Your task to perform on an android device: turn off notifications settings in the gmail app Image 0: 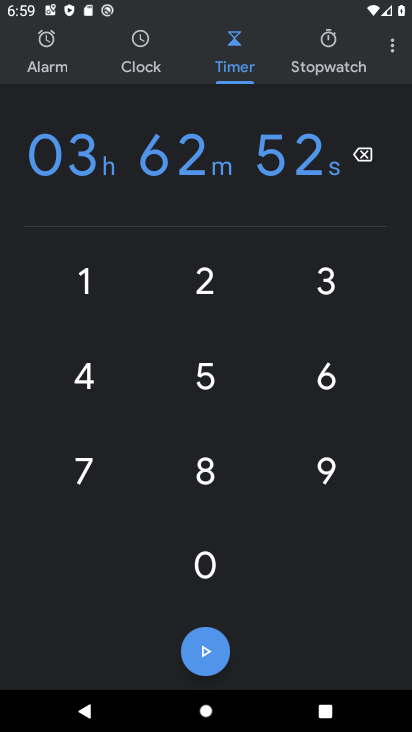
Step 0: press home button
Your task to perform on an android device: turn off notifications settings in the gmail app Image 1: 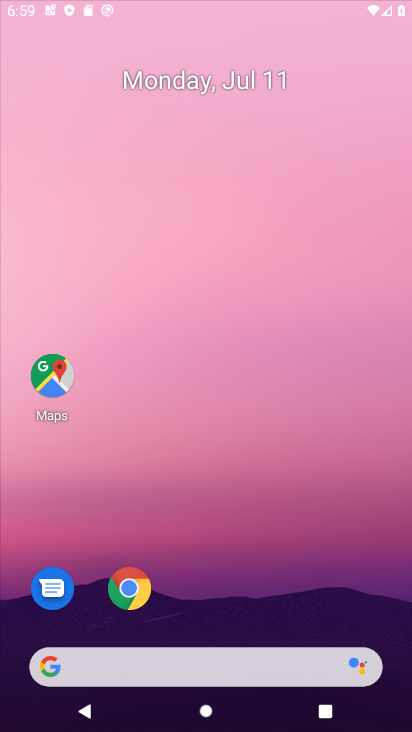
Step 1: drag from (387, 612) to (209, 20)
Your task to perform on an android device: turn off notifications settings in the gmail app Image 2: 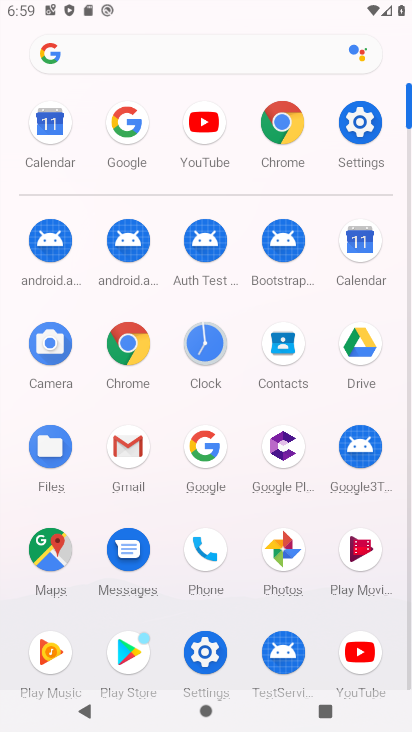
Step 2: click (139, 445)
Your task to perform on an android device: turn off notifications settings in the gmail app Image 3: 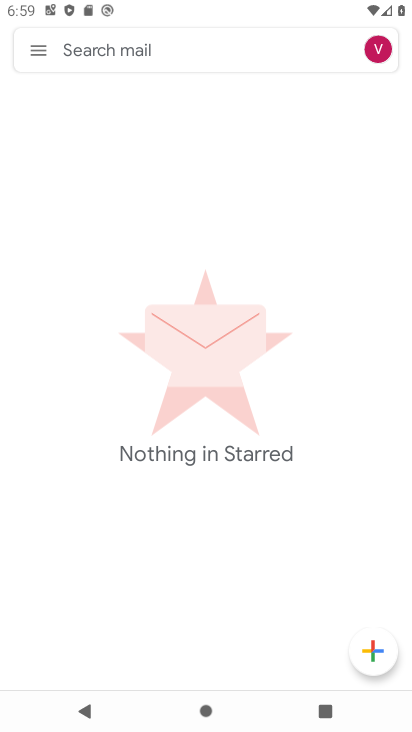
Step 3: click (40, 54)
Your task to perform on an android device: turn off notifications settings in the gmail app Image 4: 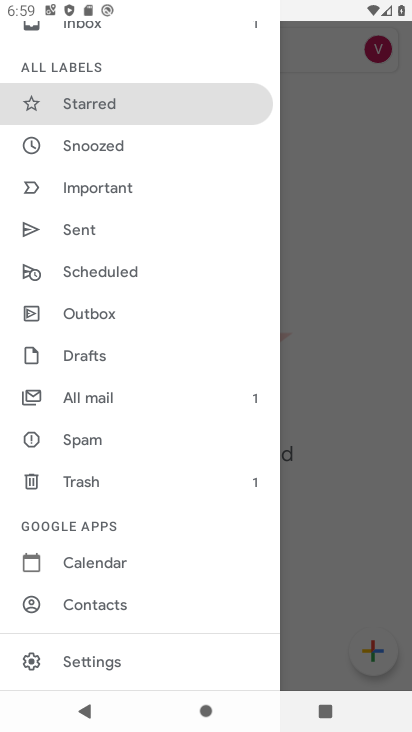
Step 4: click (86, 663)
Your task to perform on an android device: turn off notifications settings in the gmail app Image 5: 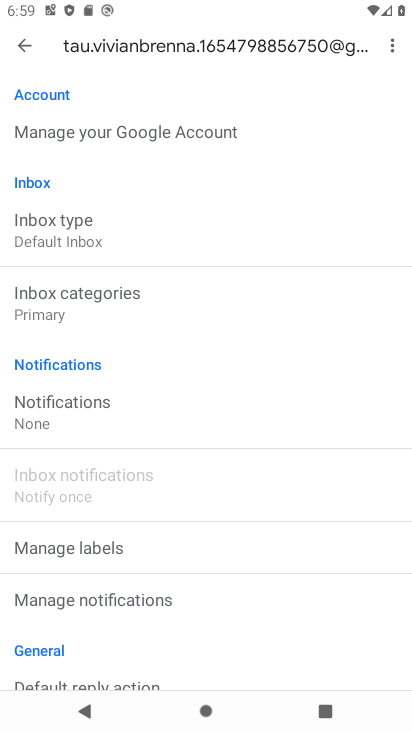
Step 5: click (119, 414)
Your task to perform on an android device: turn off notifications settings in the gmail app Image 6: 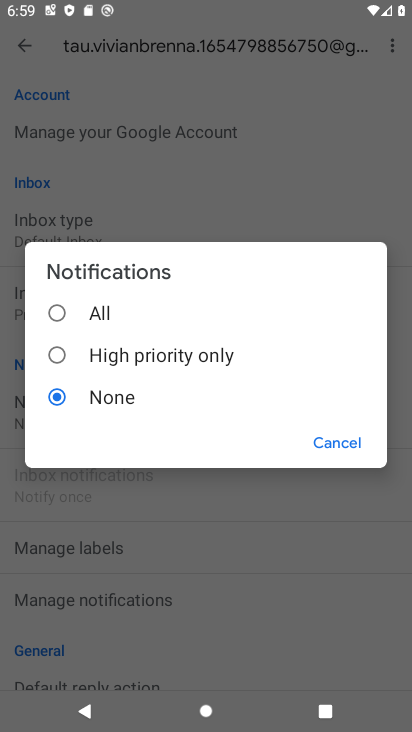
Step 6: click (101, 396)
Your task to perform on an android device: turn off notifications settings in the gmail app Image 7: 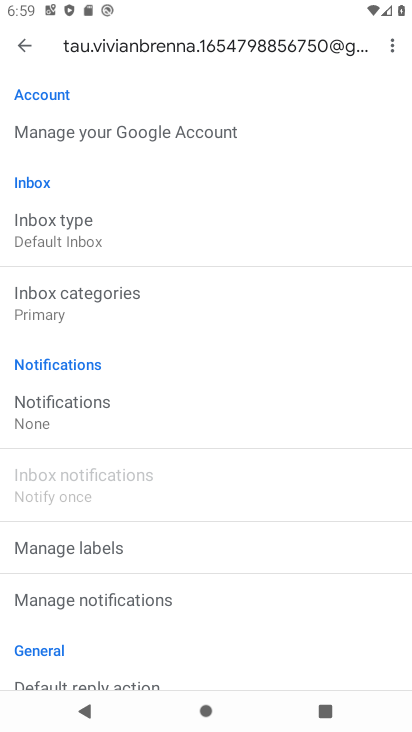
Step 7: task complete